Your task to perform on an android device: change the upload size in google photos Image 0: 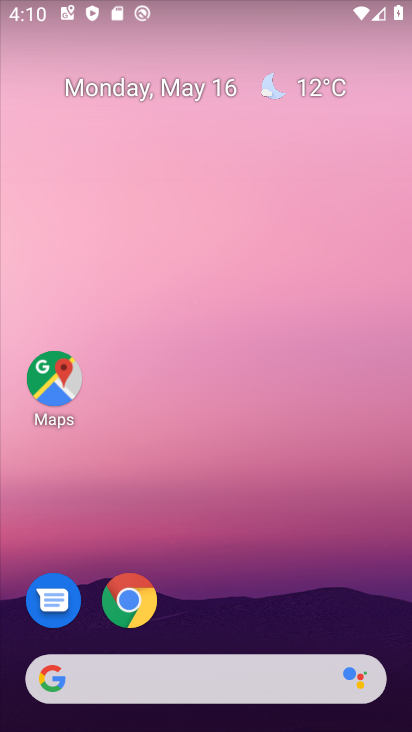
Step 0: drag from (178, 662) to (266, 244)
Your task to perform on an android device: change the upload size in google photos Image 1: 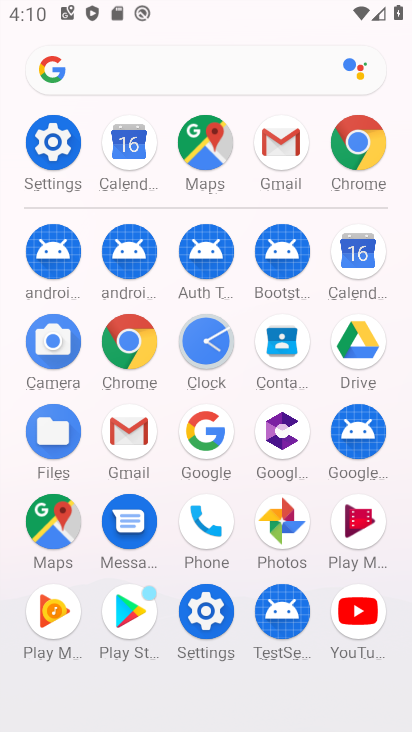
Step 1: click (266, 530)
Your task to perform on an android device: change the upload size in google photos Image 2: 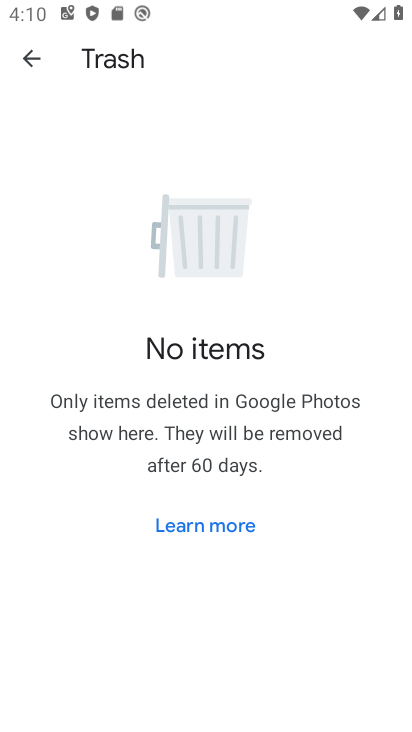
Step 2: click (31, 55)
Your task to perform on an android device: change the upload size in google photos Image 3: 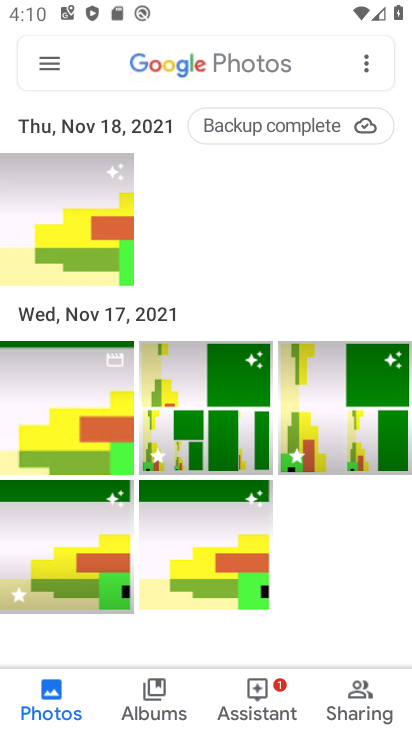
Step 3: click (42, 72)
Your task to perform on an android device: change the upload size in google photos Image 4: 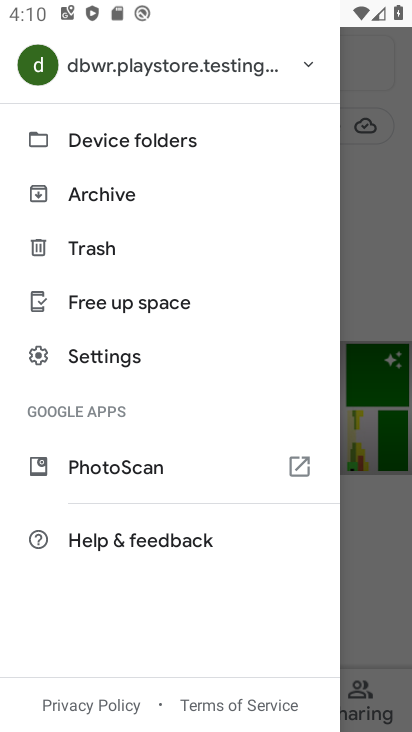
Step 4: click (98, 352)
Your task to perform on an android device: change the upload size in google photos Image 5: 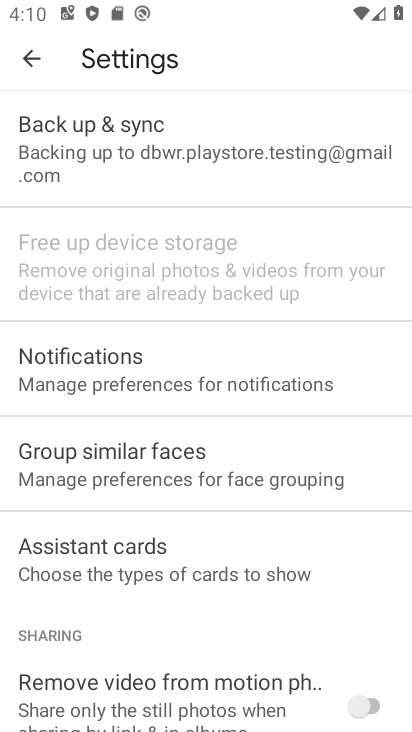
Step 5: click (100, 122)
Your task to perform on an android device: change the upload size in google photos Image 6: 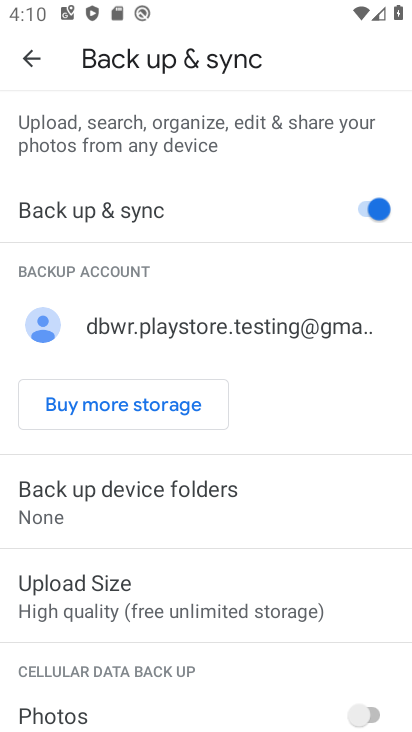
Step 6: click (102, 589)
Your task to perform on an android device: change the upload size in google photos Image 7: 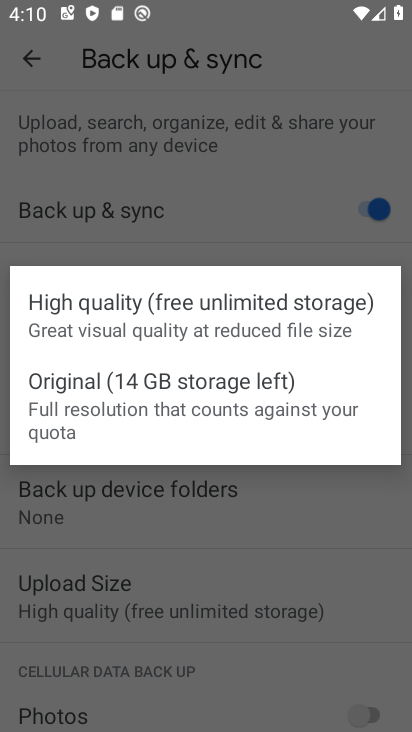
Step 7: click (56, 389)
Your task to perform on an android device: change the upload size in google photos Image 8: 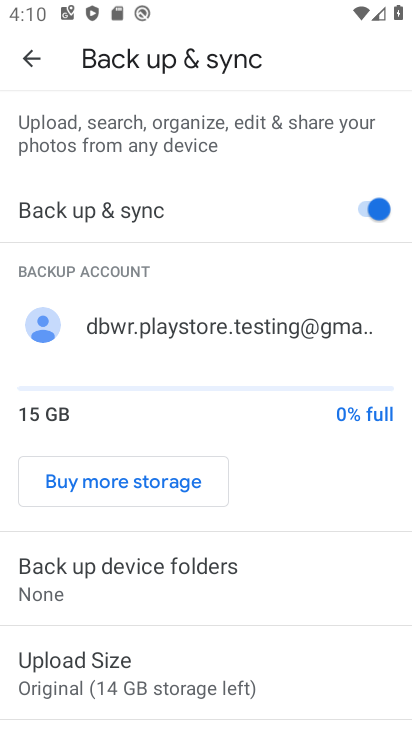
Step 8: task complete